Your task to perform on an android device: Search for pizza restaurants on Maps Image 0: 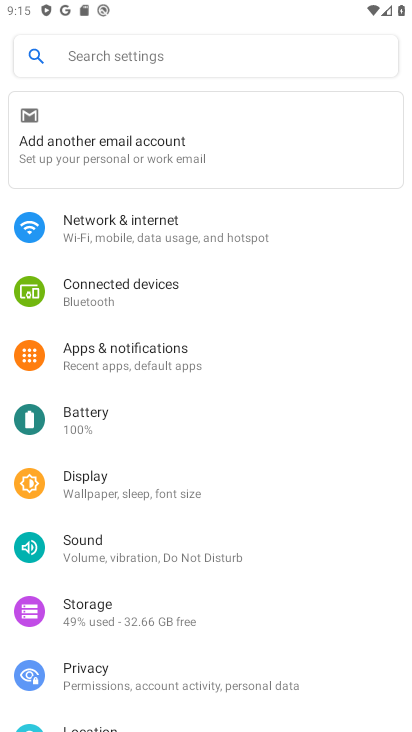
Step 0: press home button
Your task to perform on an android device: Search for pizza restaurants on Maps Image 1: 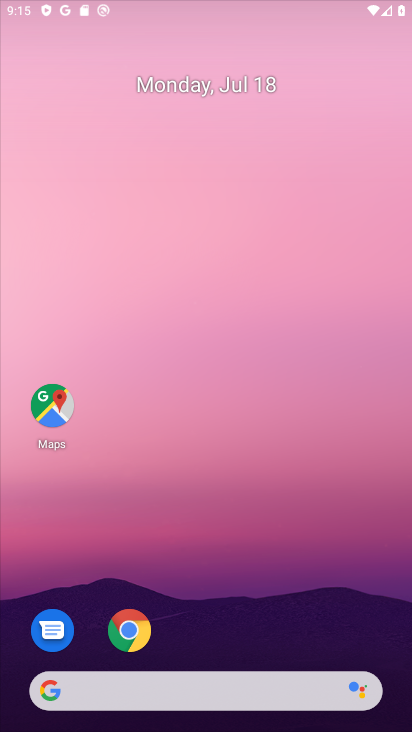
Step 1: drag from (387, 649) to (227, 110)
Your task to perform on an android device: Search for pizza restaurants on Maps Image 2: 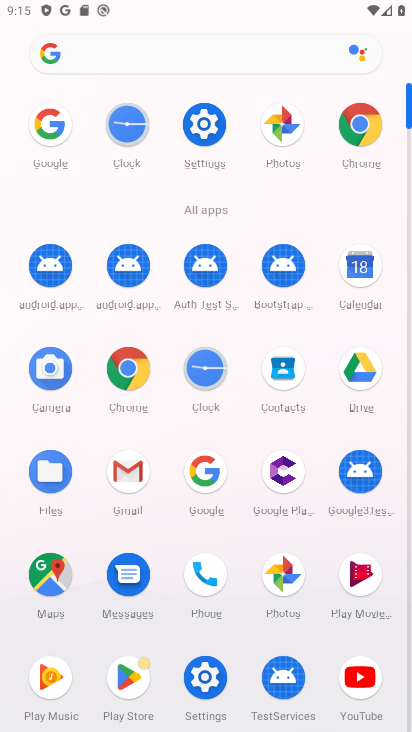
Step 2: click (51, 576)
Your task to perform on an android device: Search for pizza restaurants on Maps Image 3: 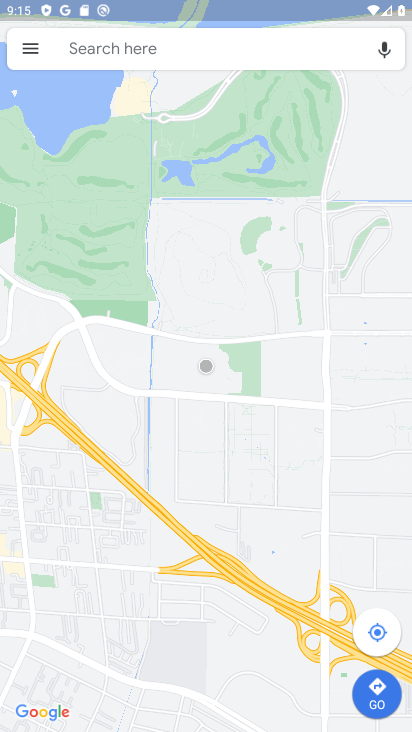
Step 3: click (83, 49)
Your task to perform on an android device: Search for pizza restaurants on Maps Image 4: 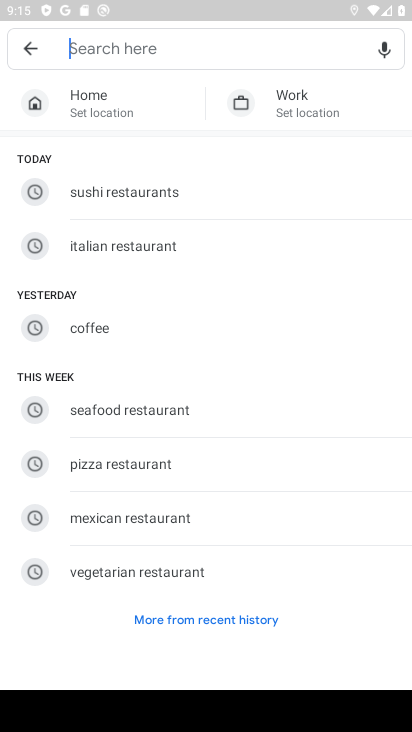
Step 4: click (116, 463)
Your task to perform on an android device: Search for pizza restaurants on Maps Image 5: 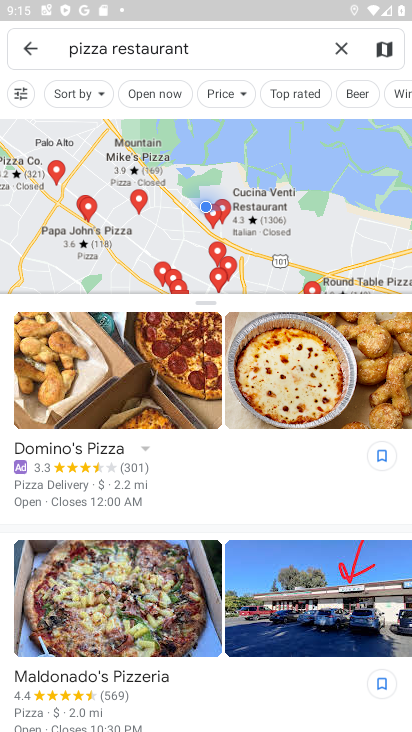
Step 5: task complete